Your task to perform on an android device: delete browsing data in the chrome app Image 0: 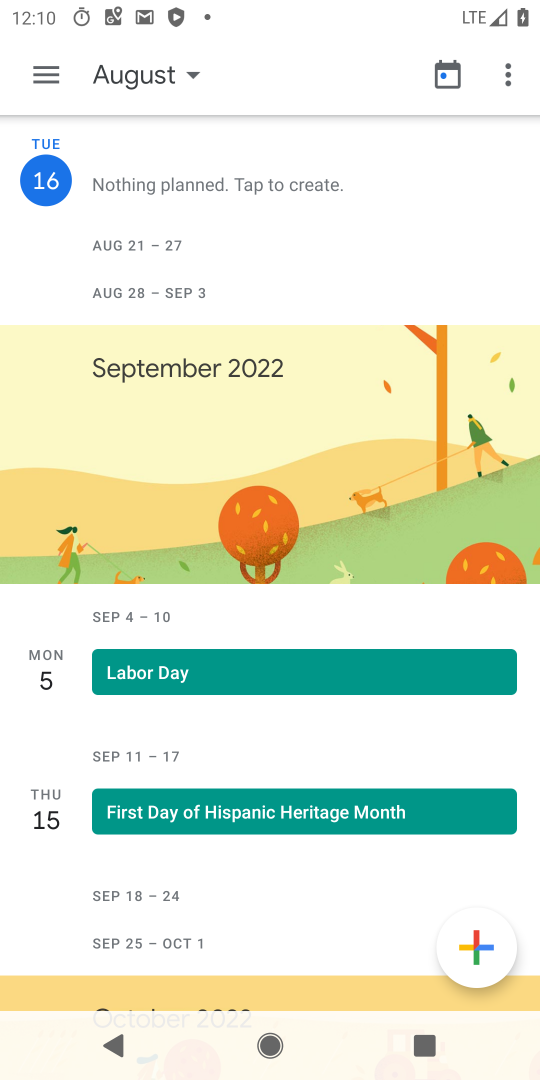
Step 0: press home button
Your task to perform on an android device: delete browsing data in the chrome app Image 1: 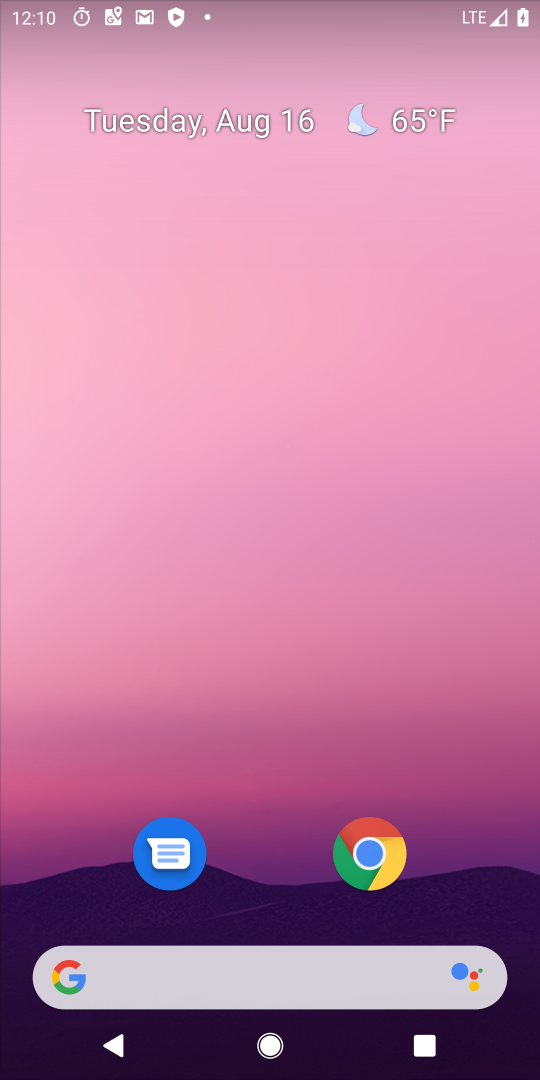
Step 1: click (350, 865)
Your task to perform on an android device: delete browsing data in the chrome app Image 2: 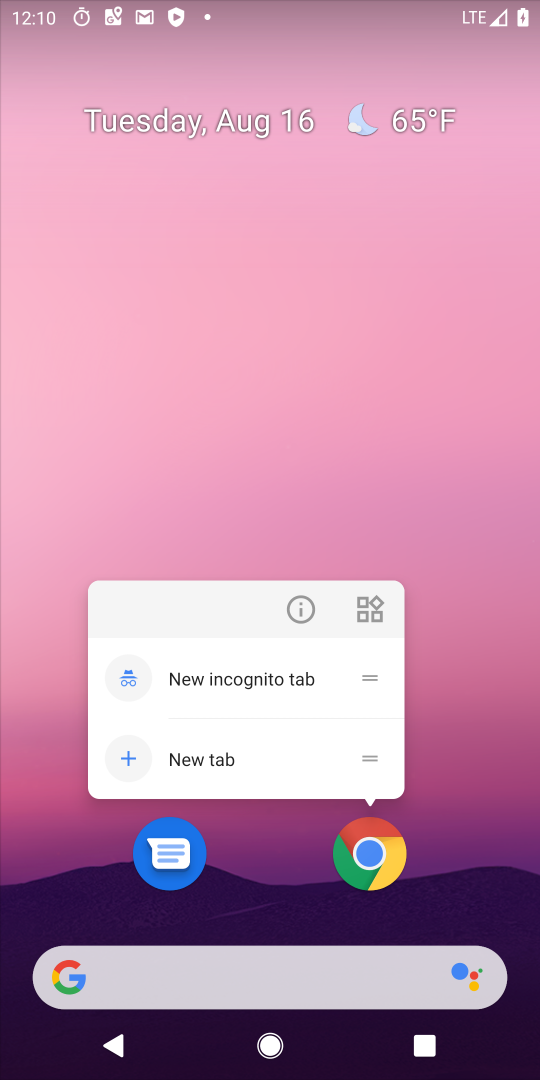
Step 2: click (367, 860)
Your task to perform on an android device: delete browsing data in the chrome app Image 3: 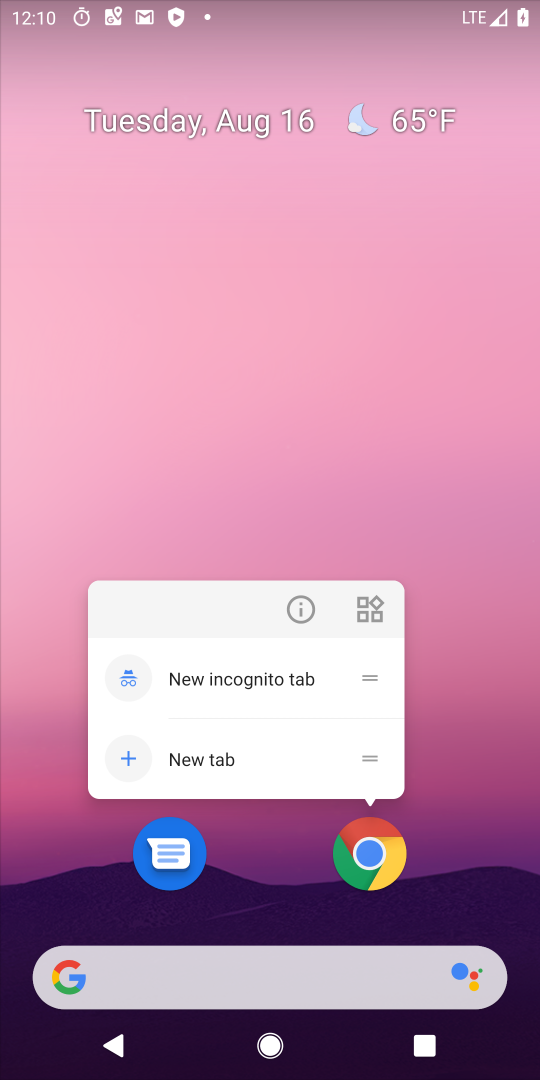
Step 3: click (367, 860)
Your task to perform on an android device: delete browsing data in the chrome app Image 4: 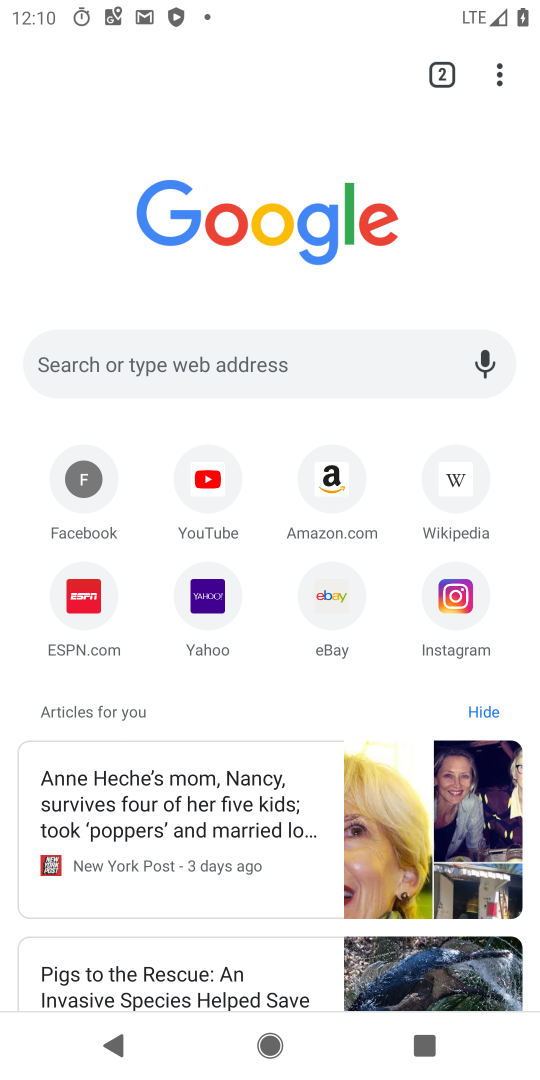
Step 4: click (491, 68)
Your task to perform on an android device: delete browsing data in the chrome app Image 5: 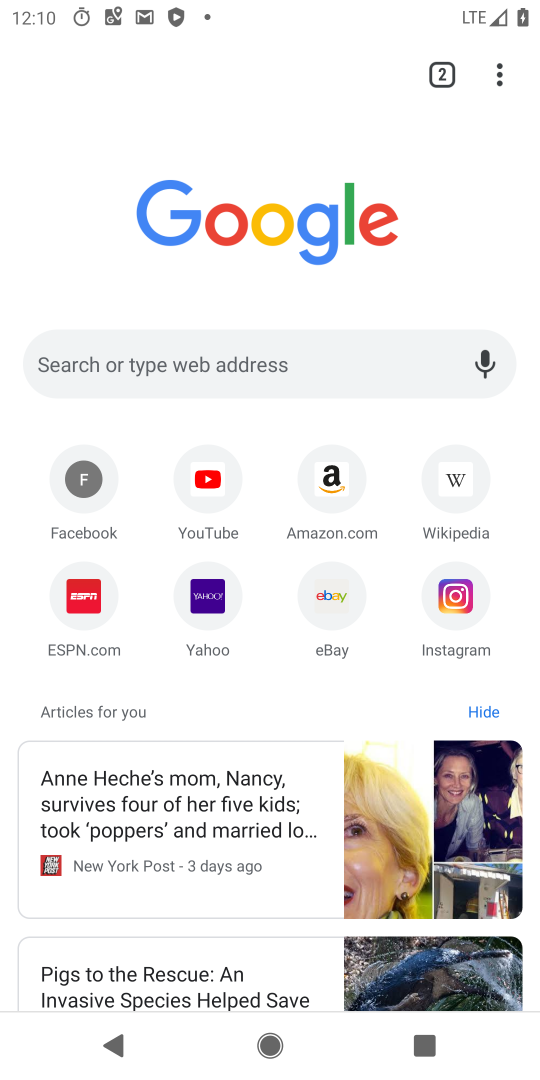
Step 5: click (503, 76)
Your task to perform on an android device: delete browsing data in the chrome app Image 6: 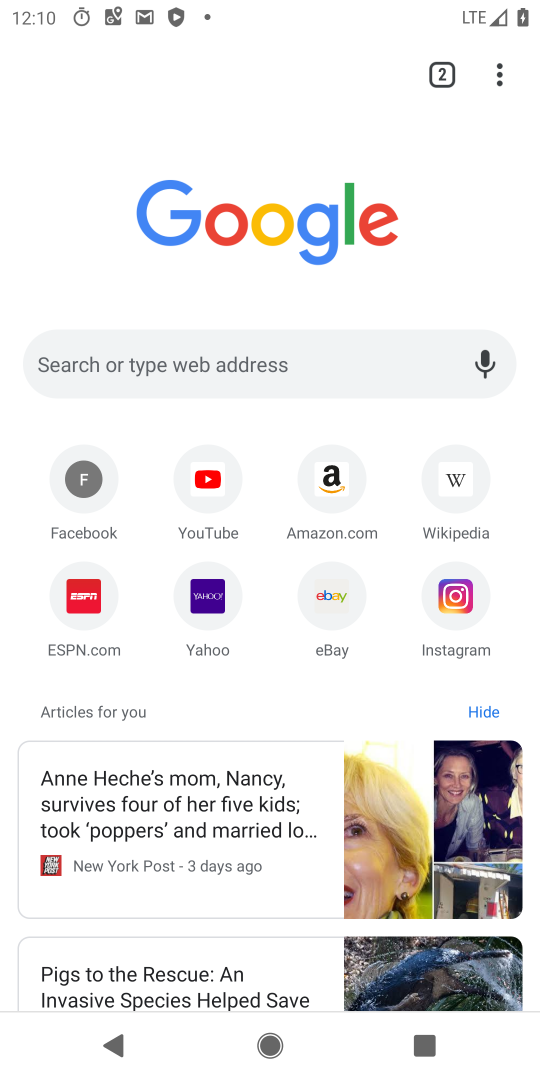
Step 6: click (493, 67)
Your task to perform on an android device: delete browsing data in the chrome app Image 7: 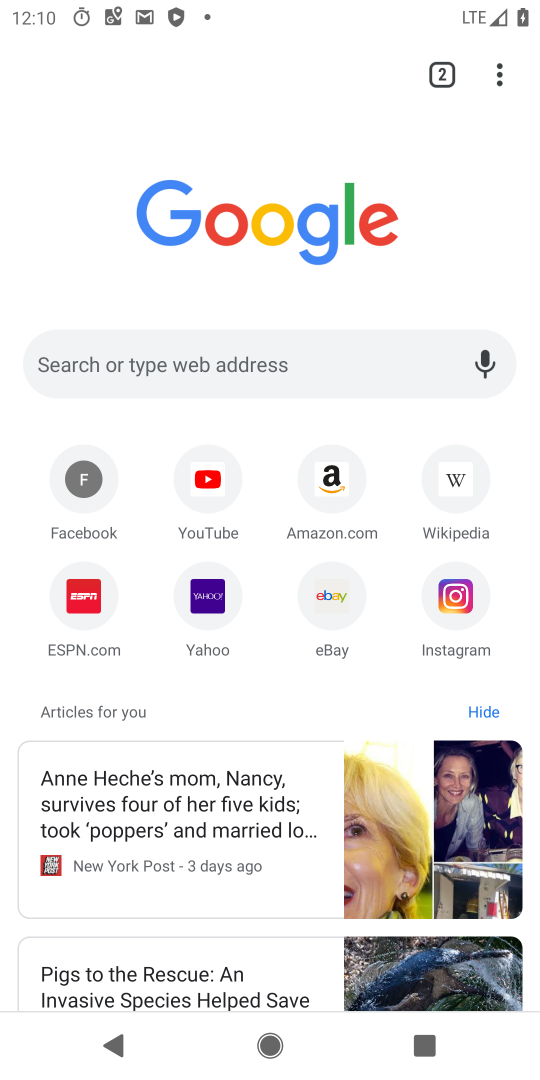
Step 7: click (493, 67)
Your task to perform on an android device: delete browsing data in the chrome app Image 8: 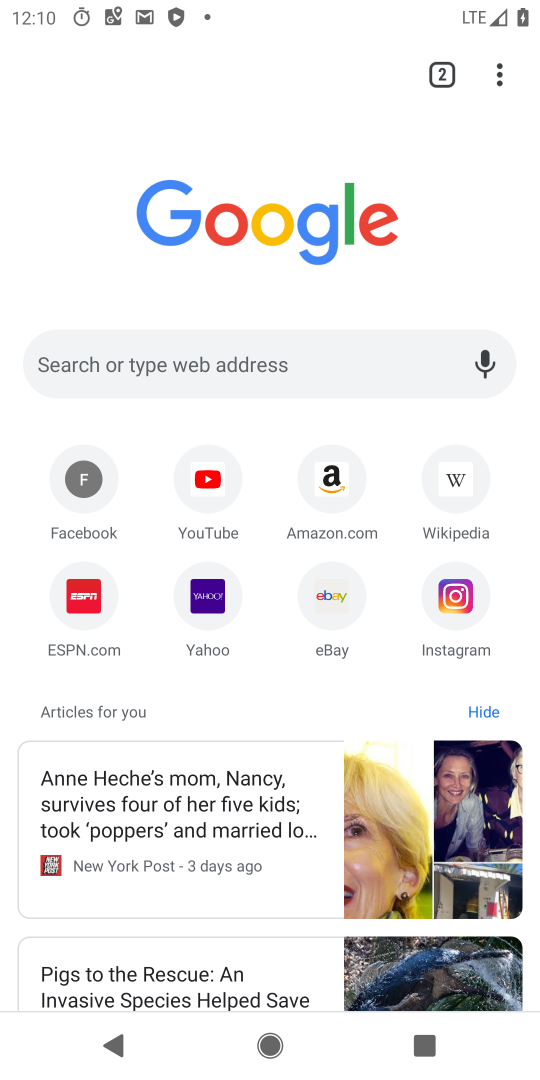
Step 8: click (496, 72)
Your task to perform on an android device: delete browsing data in the chrome app Image 9: 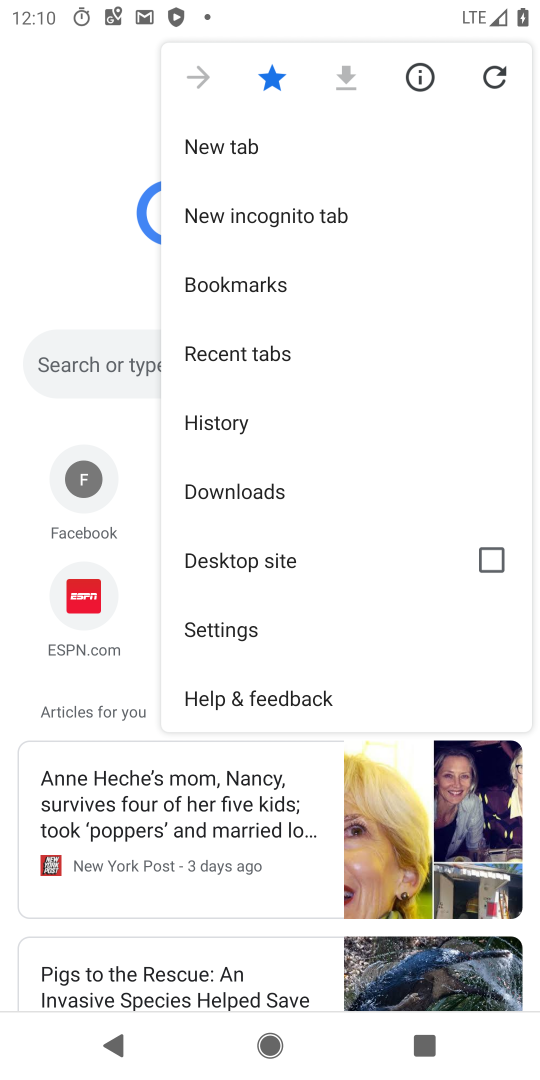
Step 9: click (221, 430)
Your task to perform on an android device: delete browsing data in the chrome app Image 10: 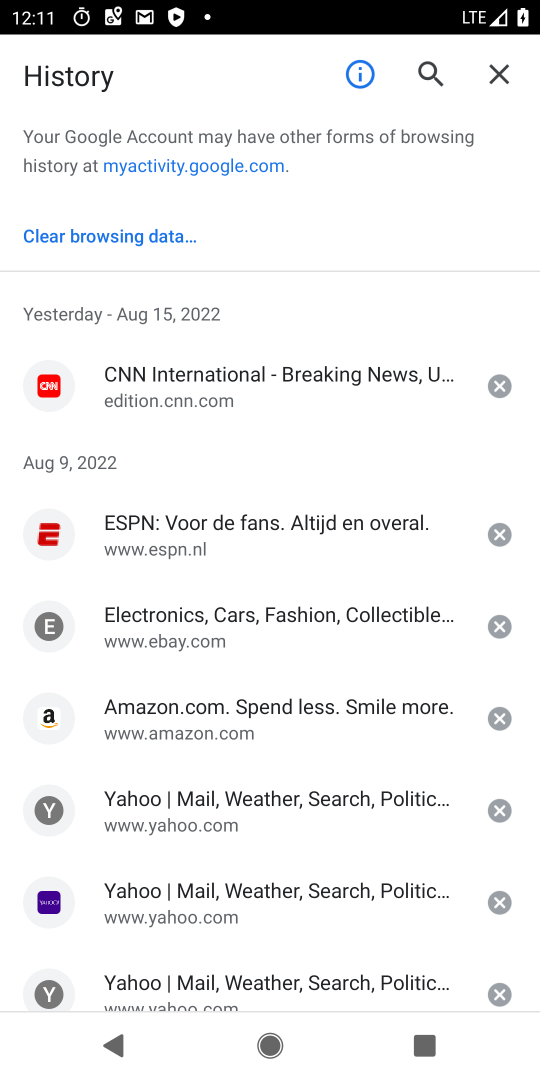
Step 10: click (154, 238)
Your task to perform on an android device: delete browsing data in the chrome app Image 11: 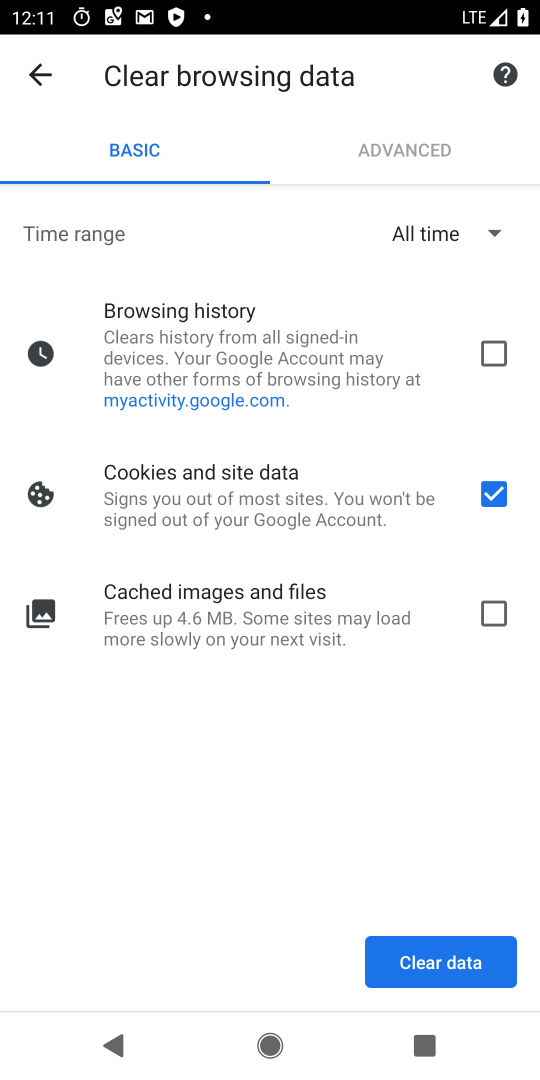
Step 11: click (499, 355)
Your task to perform on an android device: delete browsing data in the chrome app Image 12: 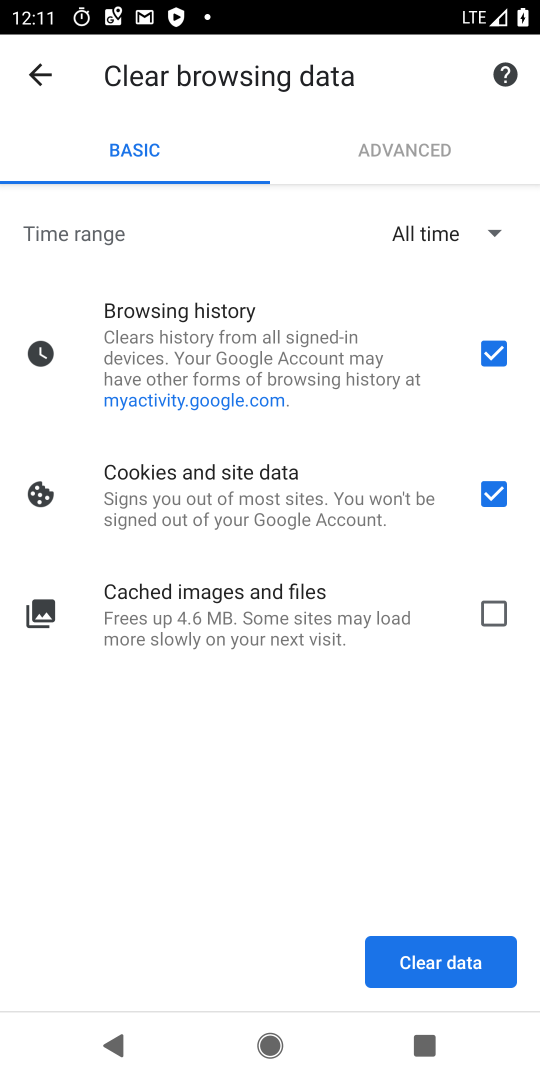
Step 12: click (492, 627)
Your task to perform on an android device: delete browsing data in the chrome app Image 13: 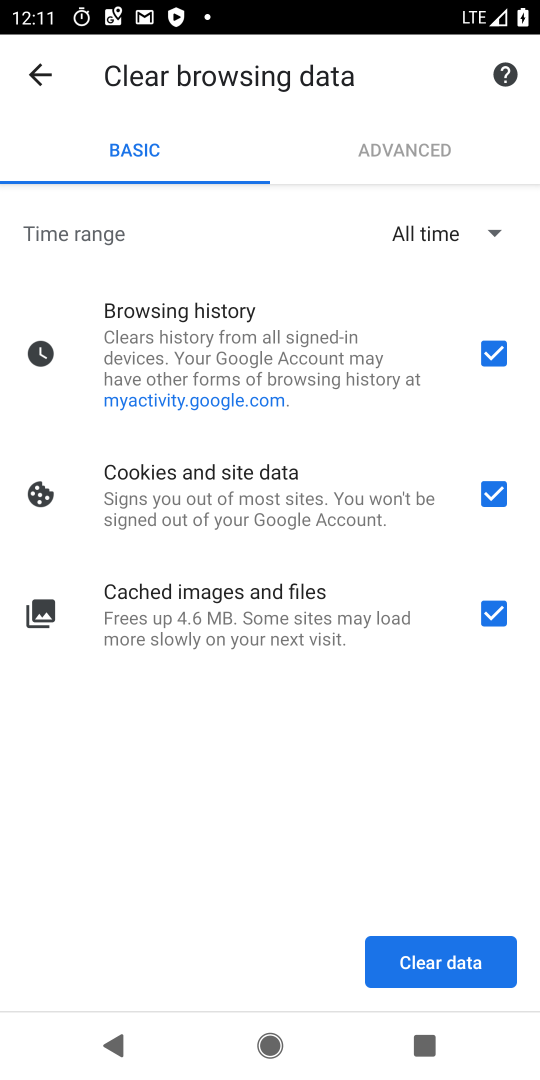
Step 13: click (421, 962)
Your task to perform on an android device: delete browsing data in the chrome app Image 14: 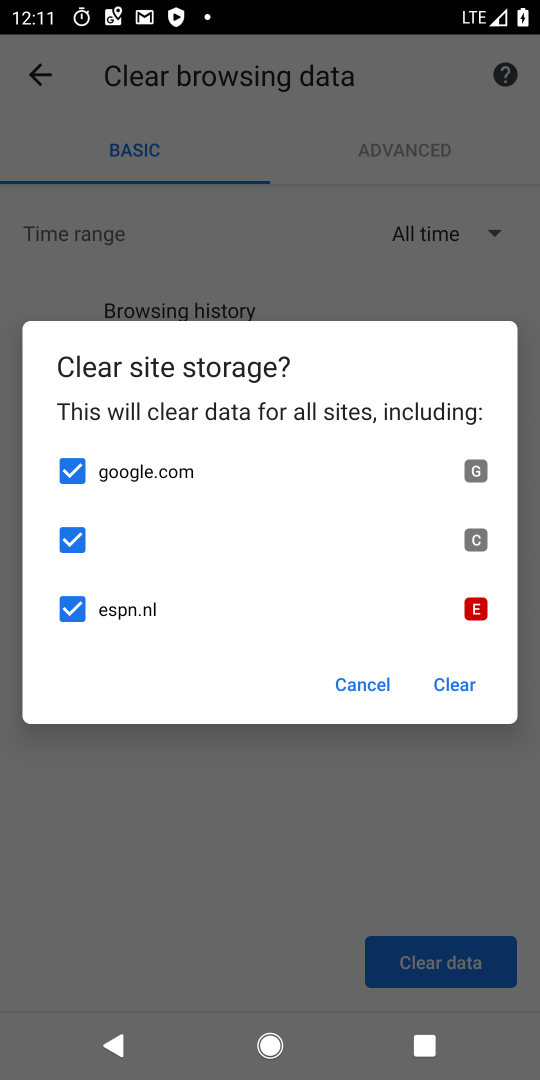
Step 14: click (442, 684)
Your task to perform on an android device: delete browsing data in the chrome app Image 15: 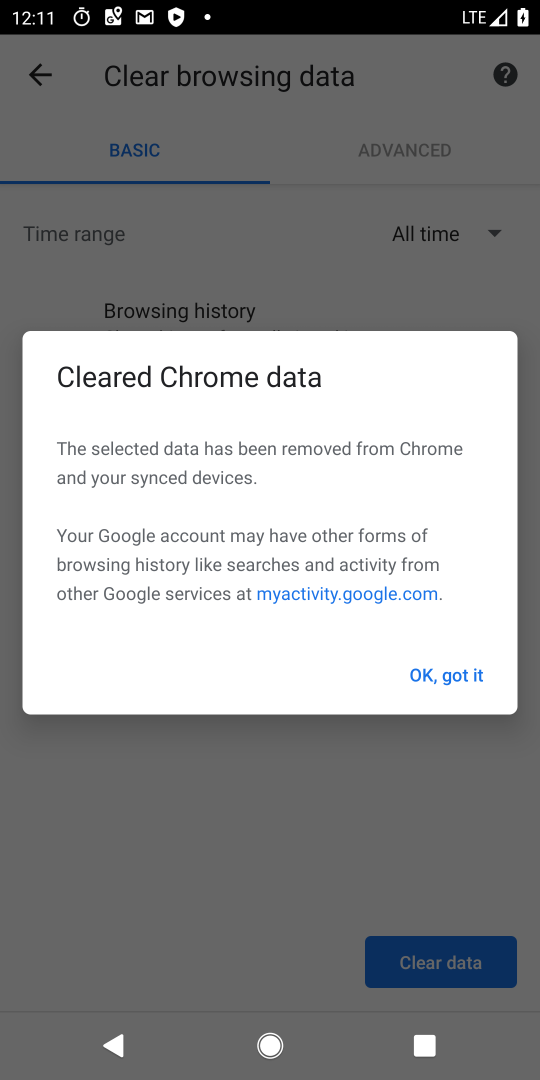
Step 15: click (409, 679)
Your task to perform on an android device: delete browsing data in the chrome app Image 16: 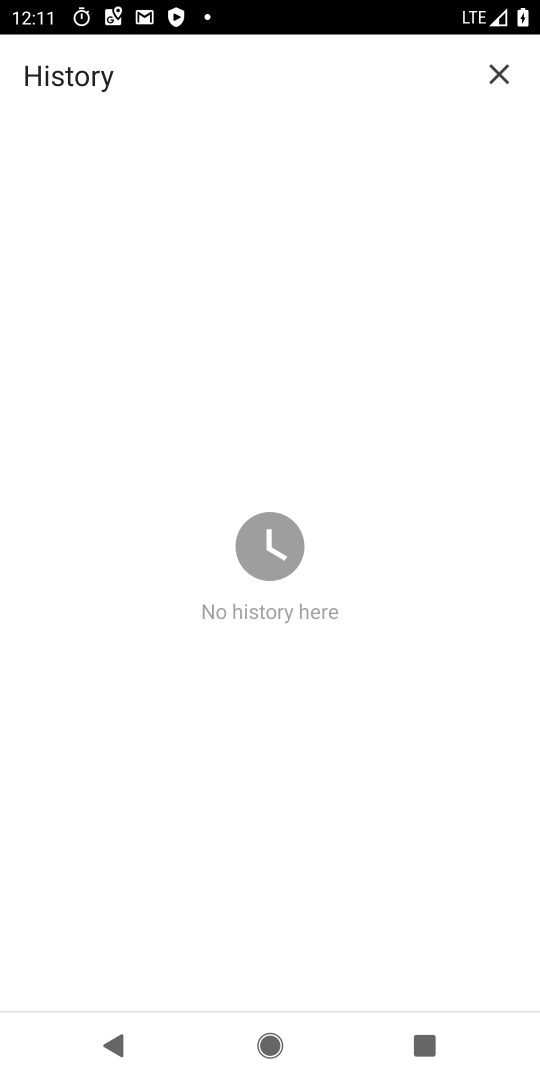
Step 16: task complete